Your task to perform on an android device: Open Reddit.com Image 0: 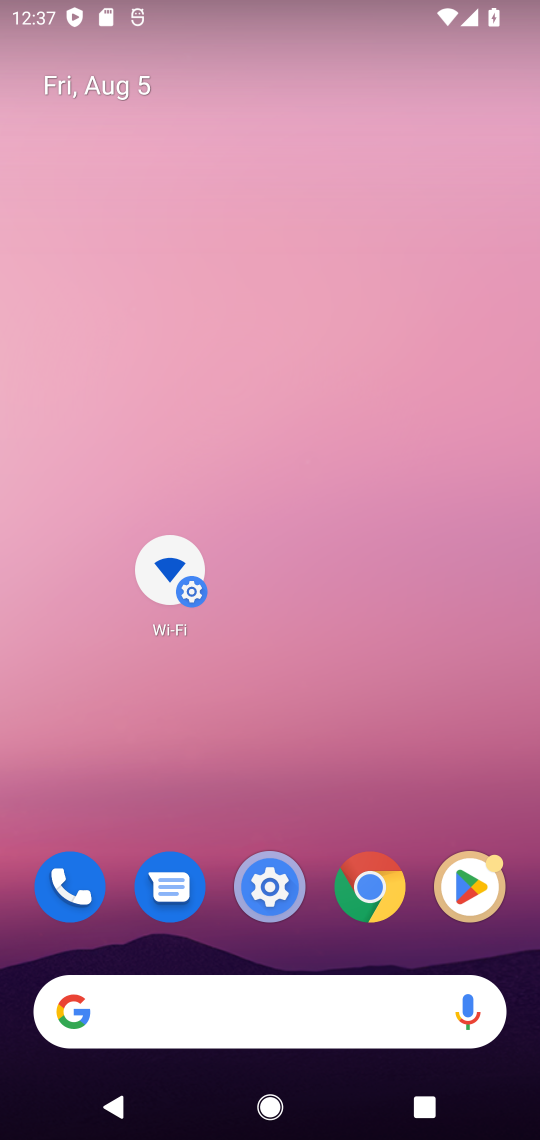
Step 0: click (359, 868)
Your task to perform on an android device: Open Reddit.com Image 1: 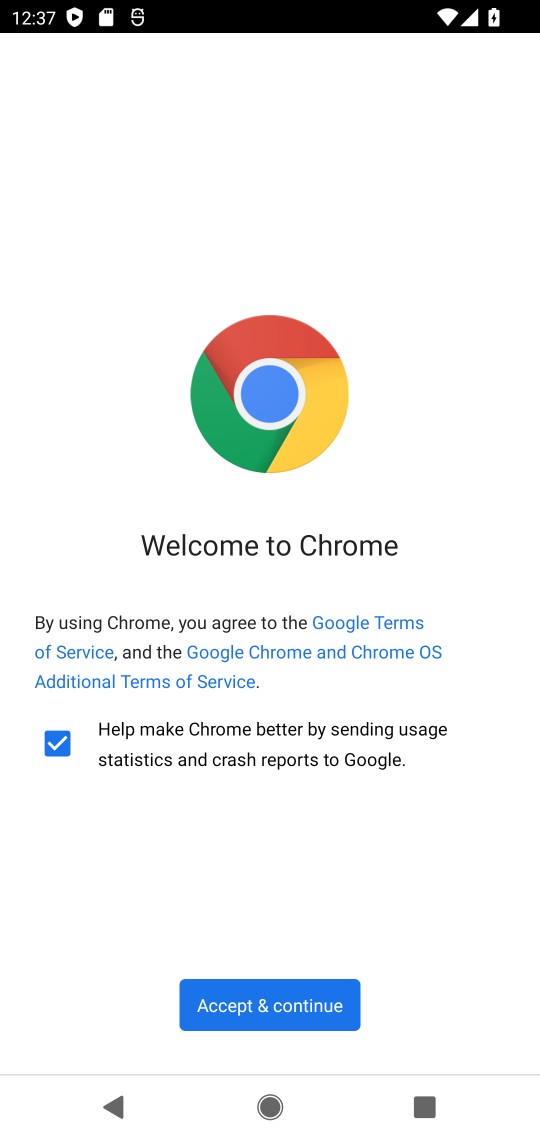
Step 1: click (246, 1007)
Your task to perform on an android device: Open Reddit.com Image 2: 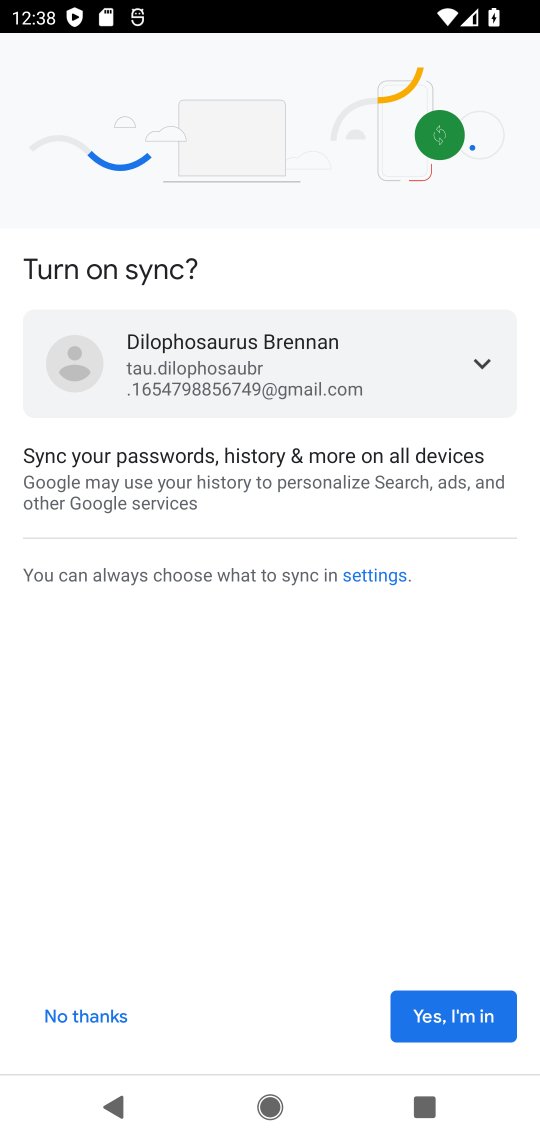
Step 2: click (443, 1013)
Your task to perform on an android device: Open Reddit.com Image 3: 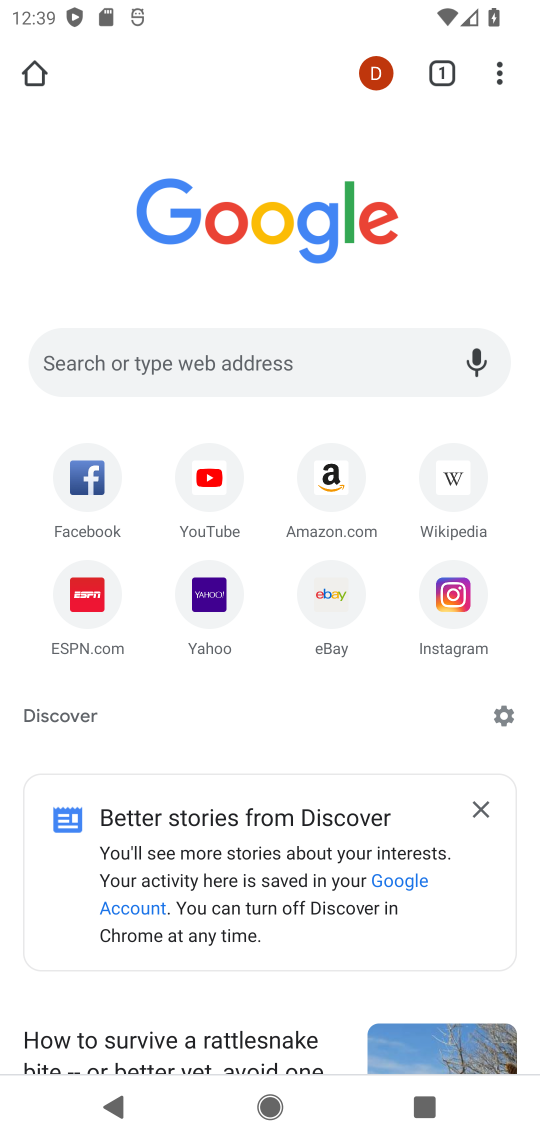
Step 3: click (297, 384)
Your task to perform on an android device: Open Reddit.com Image 4: 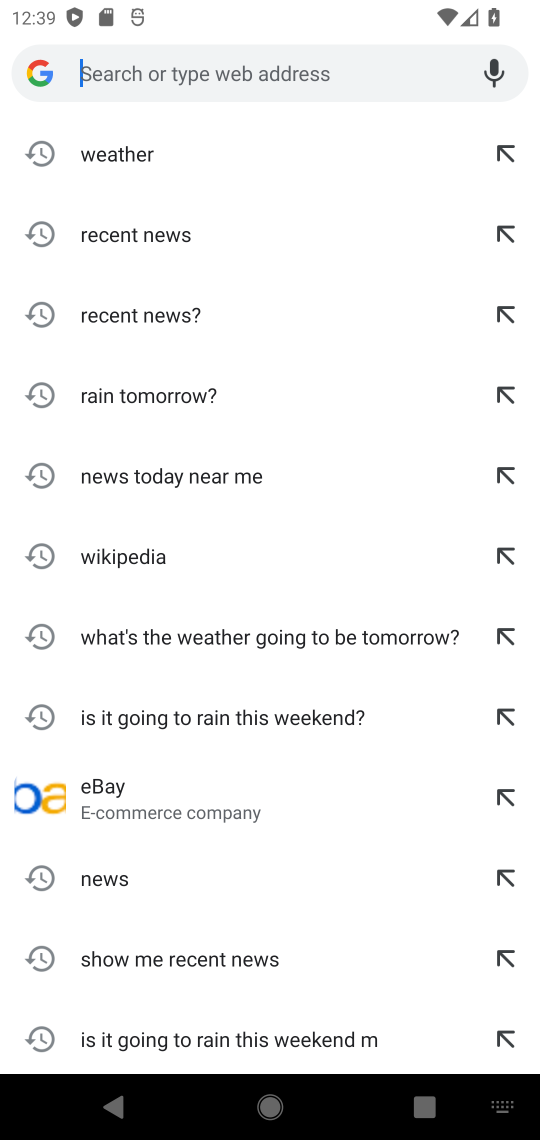
Step 4: type "reddit.com"
Your task to perform on an android device: Open Reddit.com Image 5: 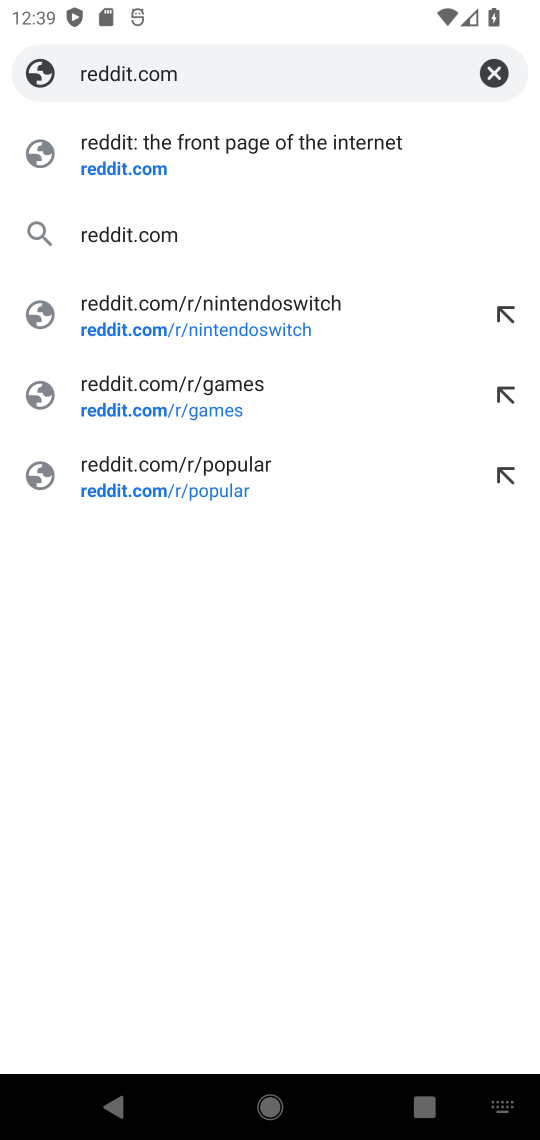
Step 5: click (272, 156)
Your task to perform on an android device: Open Reddit.com Image 6: 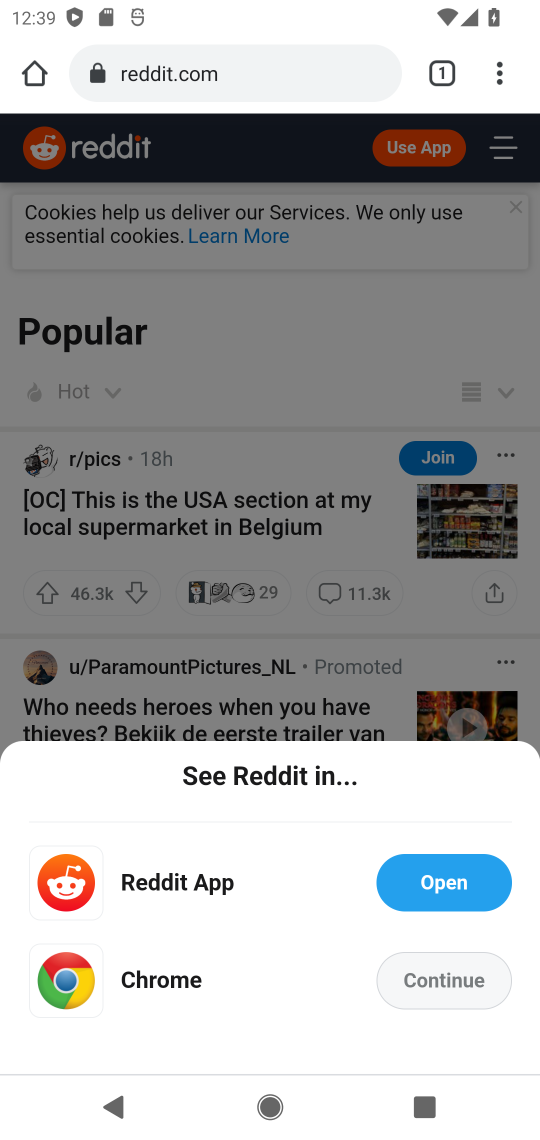
Step 6: task complete